Your task to perform on an android device: turn off translation in the chrome app Image 0: 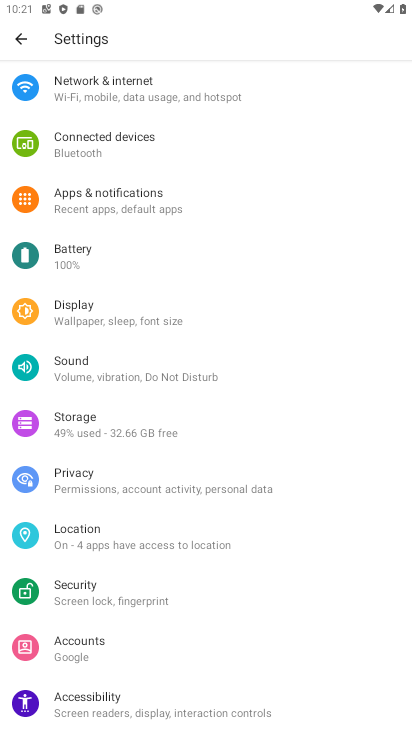
Step 0: press home button
Your task to perform on an android device: turn off translation in the chrome app Image 1: 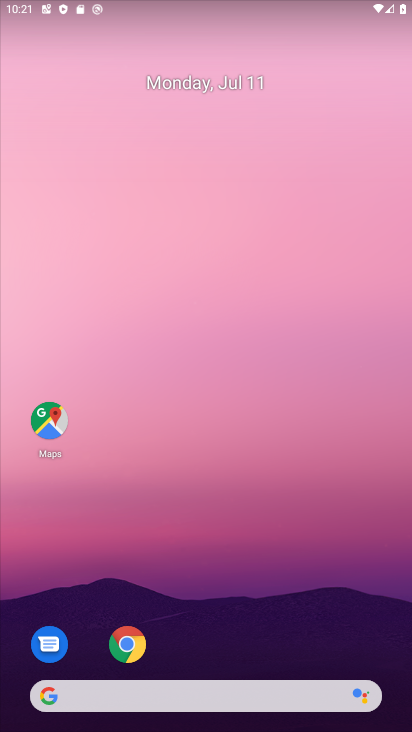
Step 1: click (117, 638)
Your task to perform on an android device: turn off translation in the chrome app Image 2: 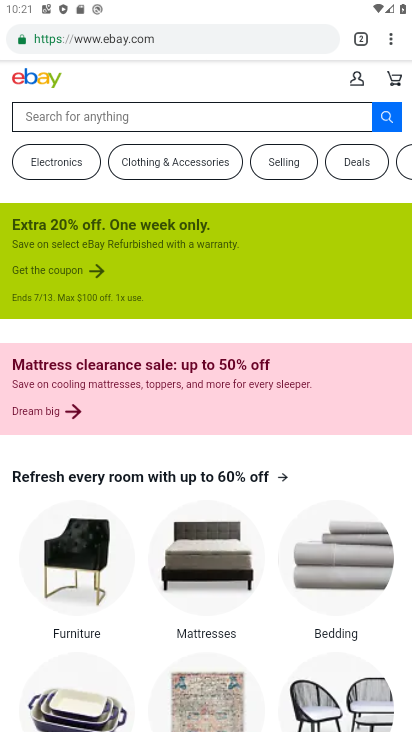
Step 2: click (389, 40)
Your task to perform on an android device: turn off translation in the chrome app Image 3: 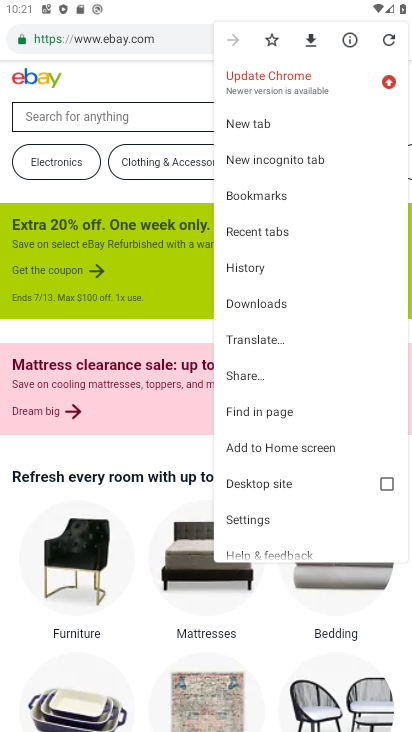
Step 3: click (277, 516)
Your task to perform on an android device: turn off translation in the chrome app Image 4: 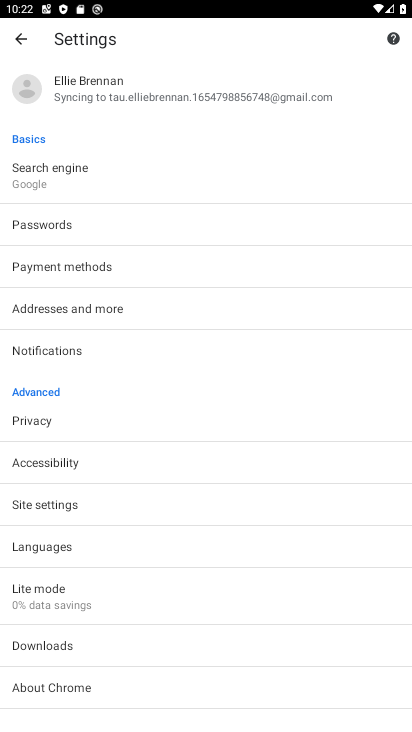
Step 4: click (76, 541)
Your task to perform on an android device: turn off translation in the chrome app Image 5: 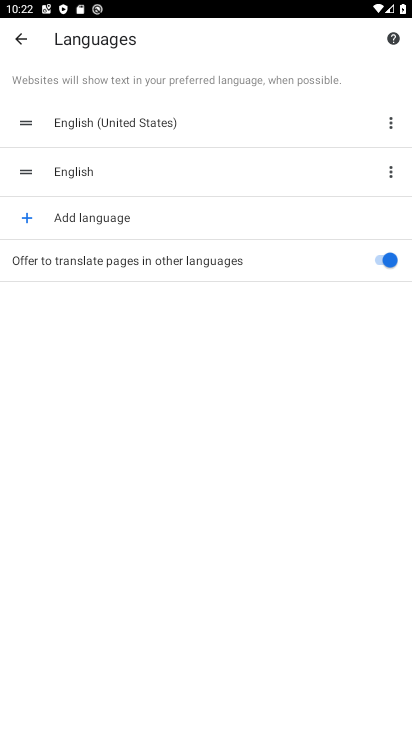
Step 5: click (375, 261)
Your task to perform on an android device: turn off translation in the chrome app Image 6: 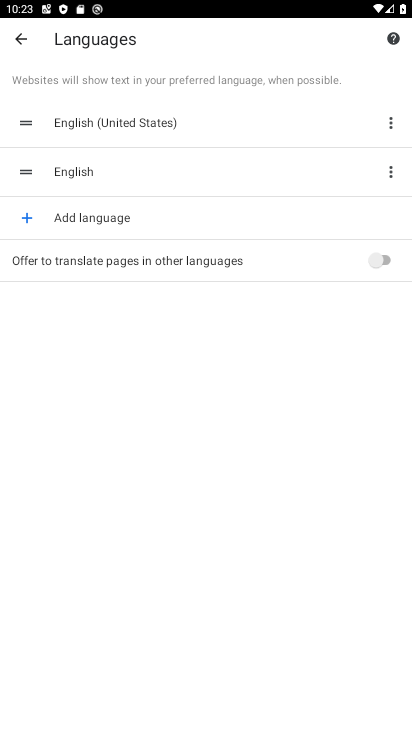
Step 6: task complete